Your task to perform on an android device: Go to sound settings Image 0: 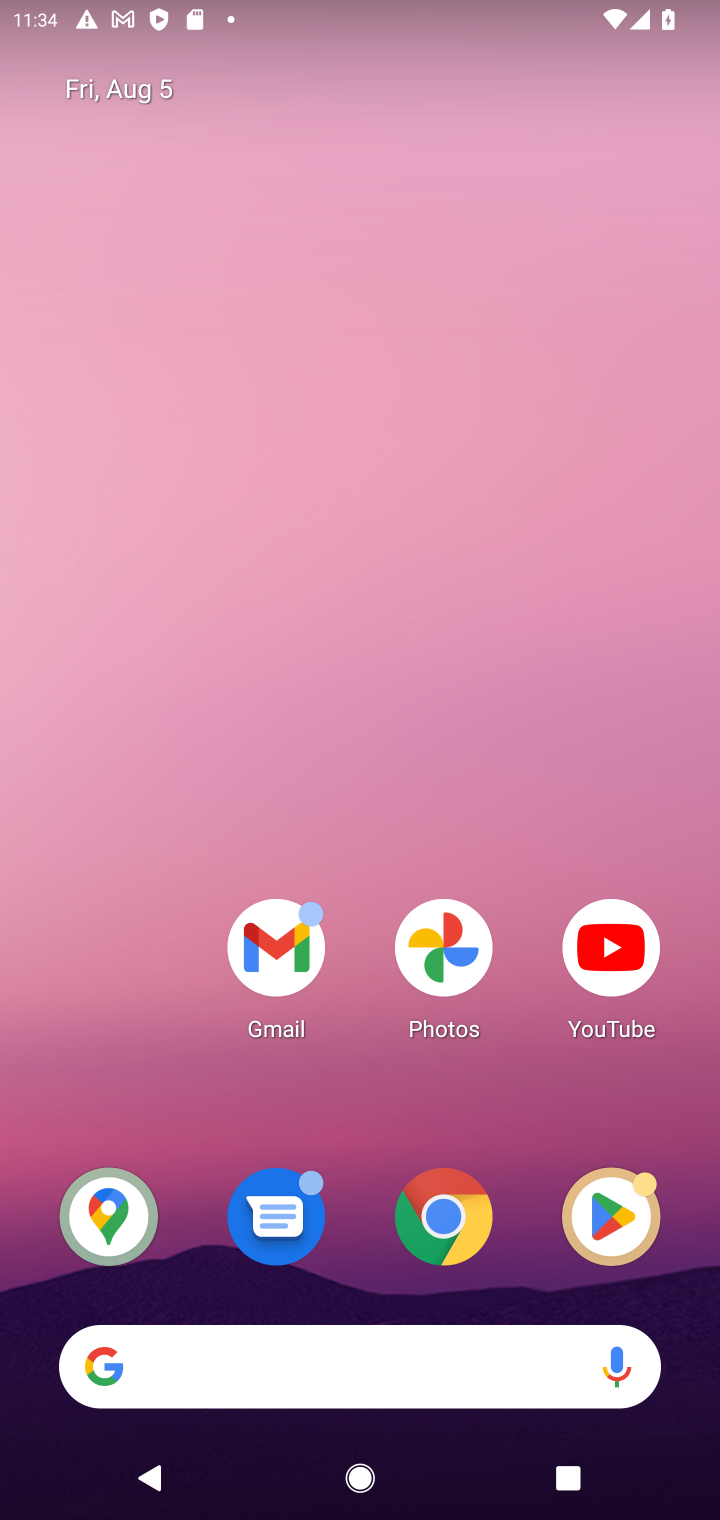
Step 0: drag from (295, 933) to (332, 332)
Your task to perform on an android device: Go to sound settings Image 1: 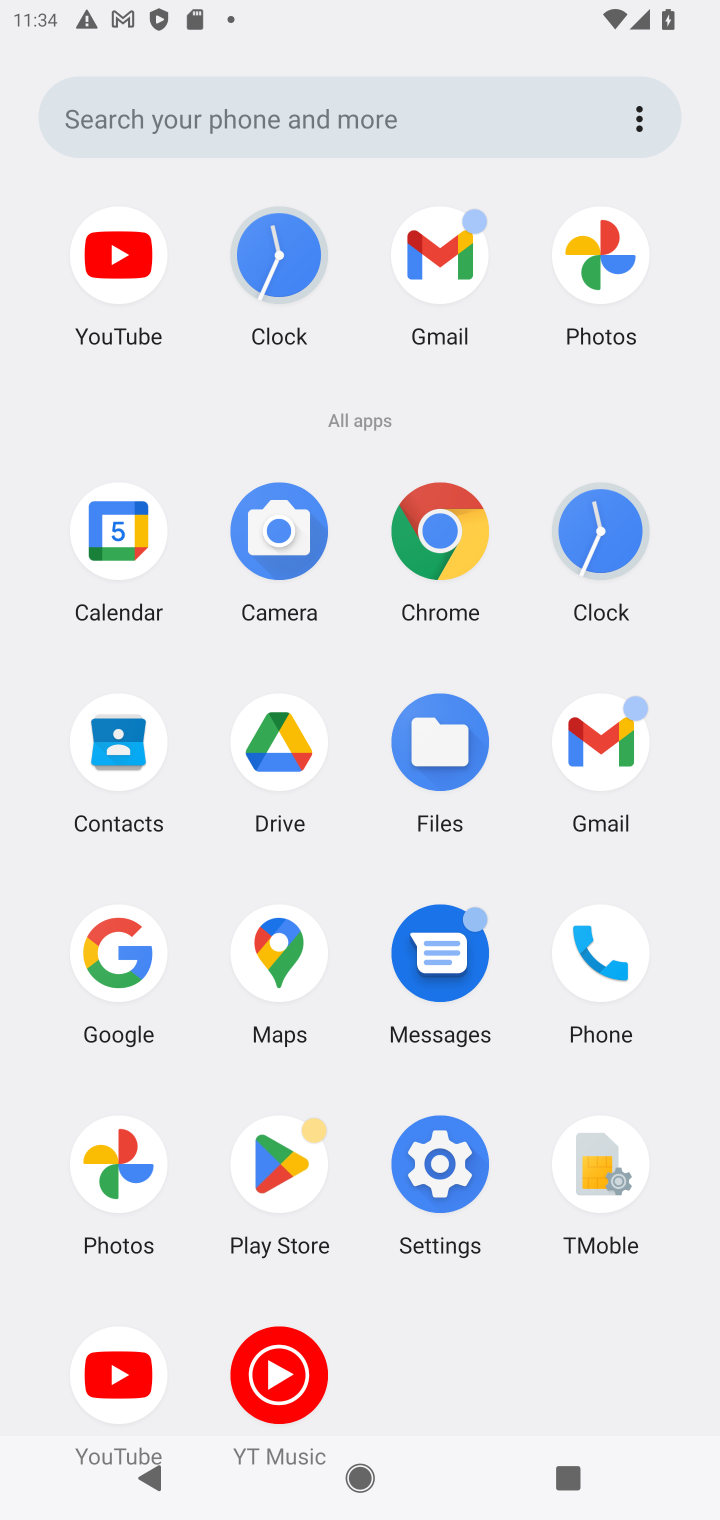
Step 1: click (452, 1172)
Your task to perform on an android device: Go to sound settings Image 2: 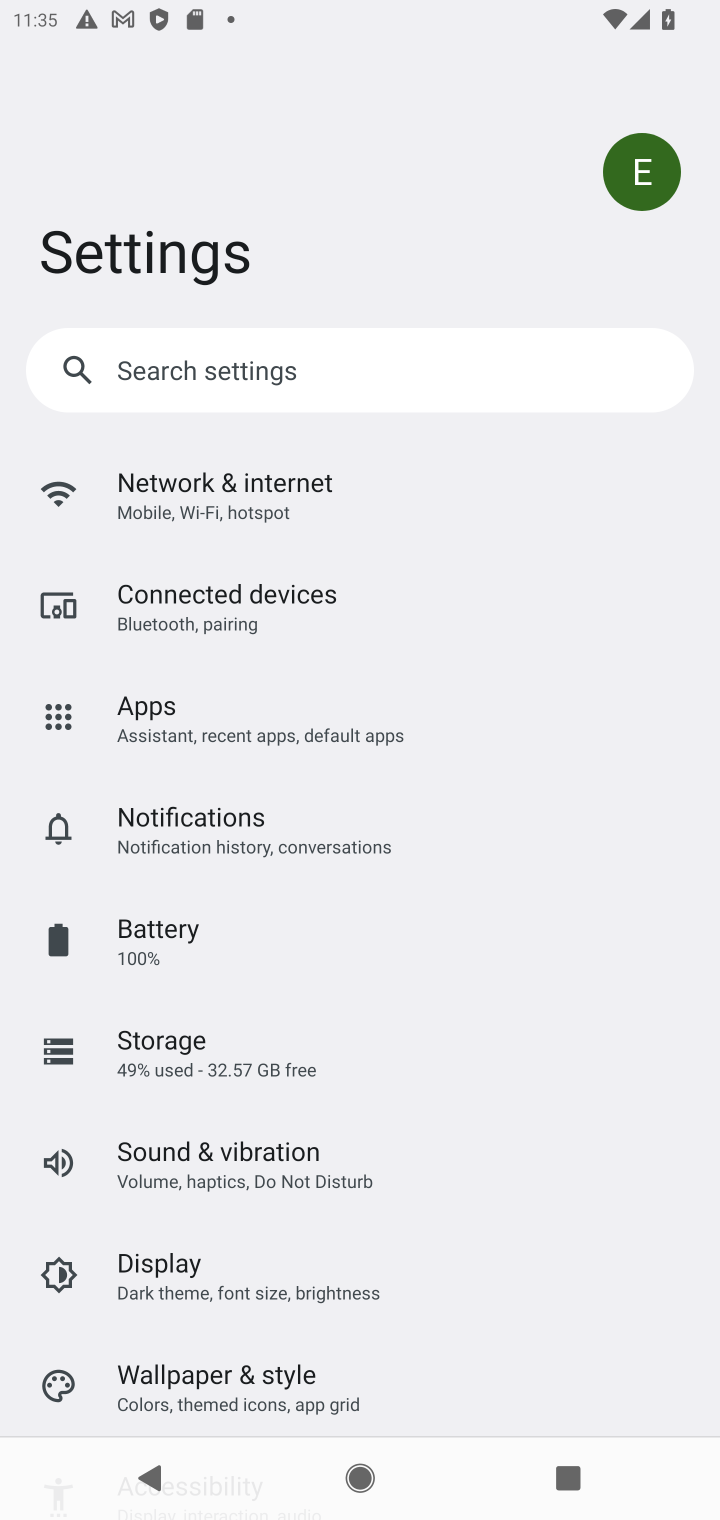
Step 2: click (236, 1169)
Your task to perform on an android device: Go to sound settings Image 3: 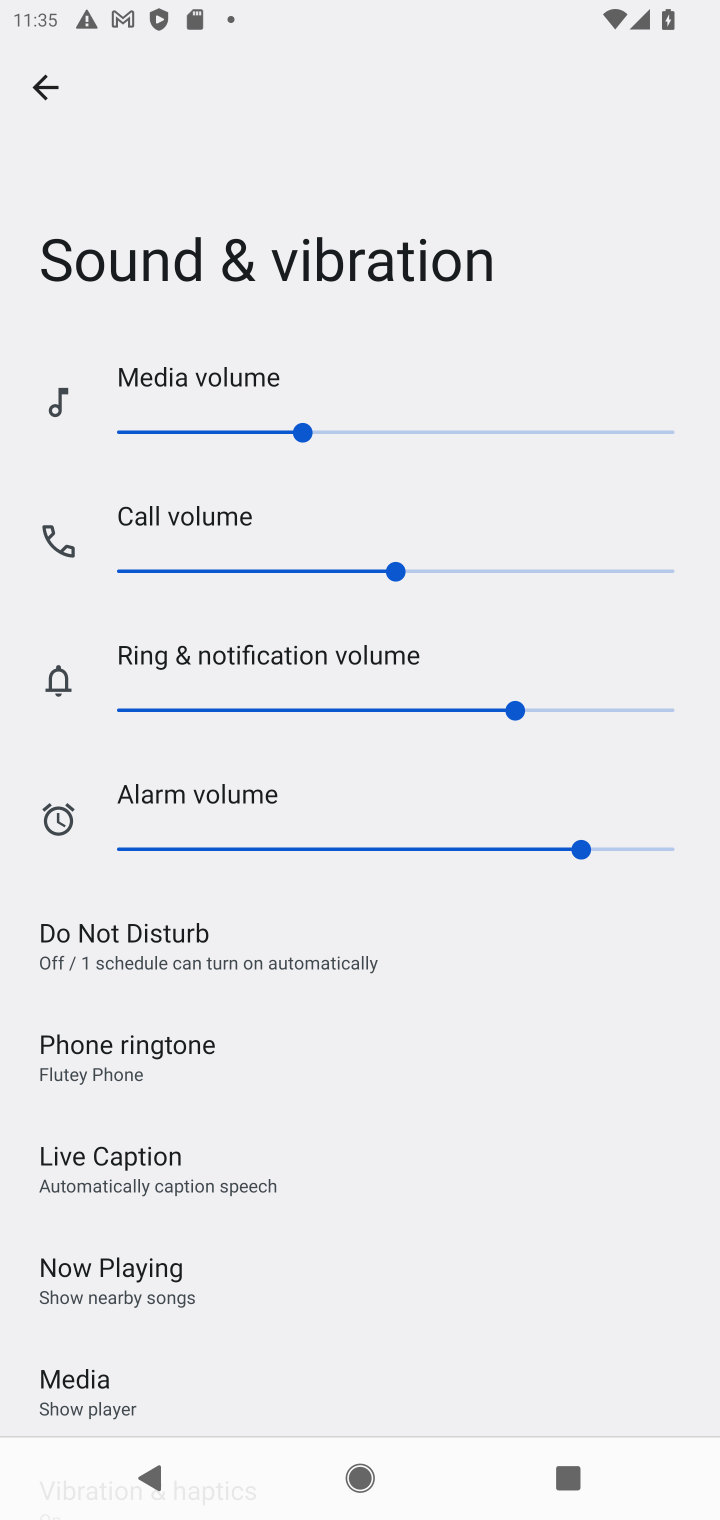
Step 3: task complete